Your task to perform on an android device: search for starred emails in the gmail app Image 0: 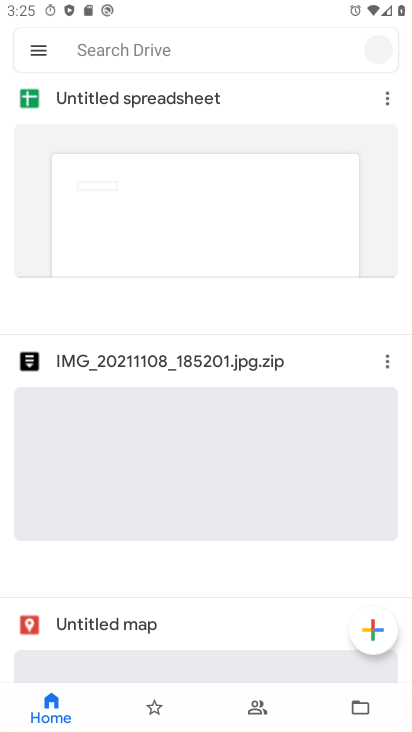
Step 0: drag from (244, 699) to (264, 558)
Your task to perform on an android device: search for starred emails in the gmail app Image 1: 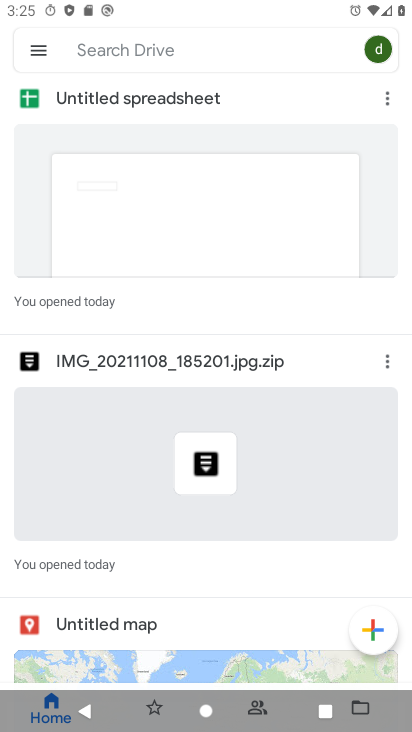
Step 1: press home button
Your task to perform on an android device: search for starred emails in the gmail app Image 2: 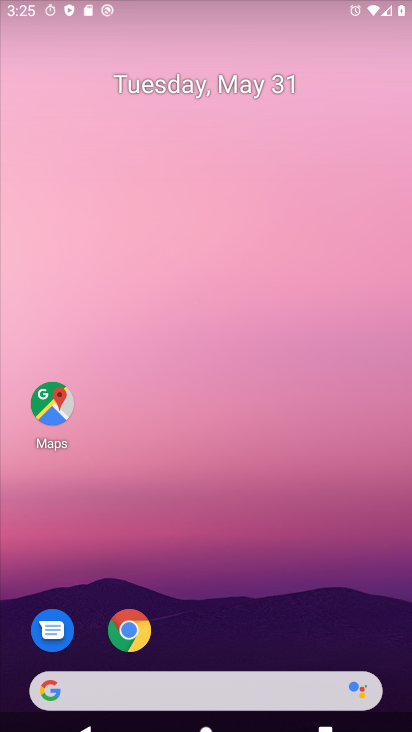
Step 2: drag from (255, 584) to (165, 22)
Your task to perform on an android device: search for starred emails in the gmail app Image 3: 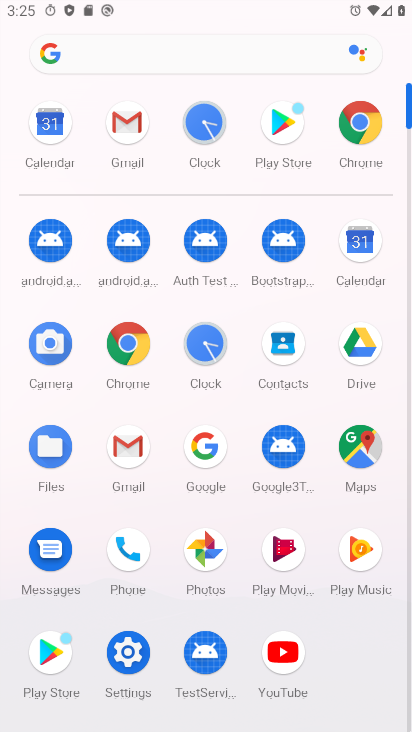
Step 3: click (138, 452)
Your task to perform on an android device: search for starred emails in the gmail app Image 4: 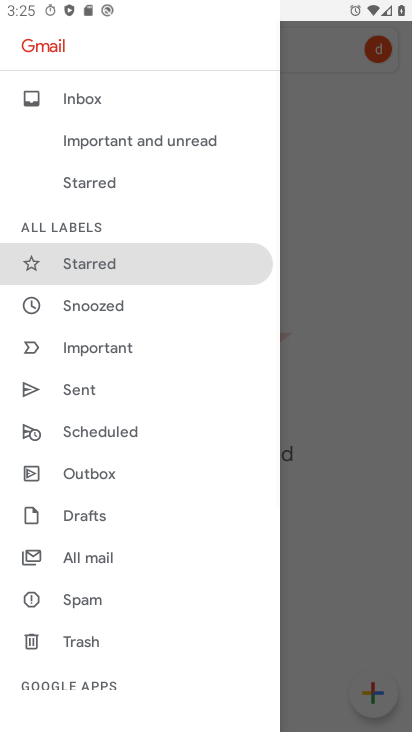
Step 4: click (133, 270)
Your task to perform on an android device: search for starred emails in the gmail app Image 5: 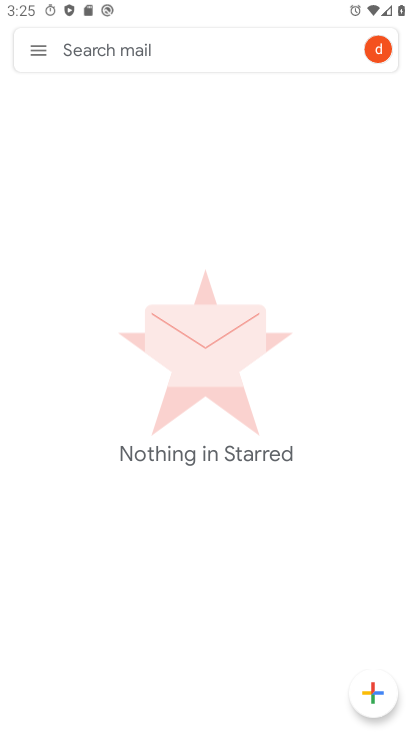
Step 5: task complete